Your task to perform on an android device: open chrome and create a bookmark for the current page Image 0: 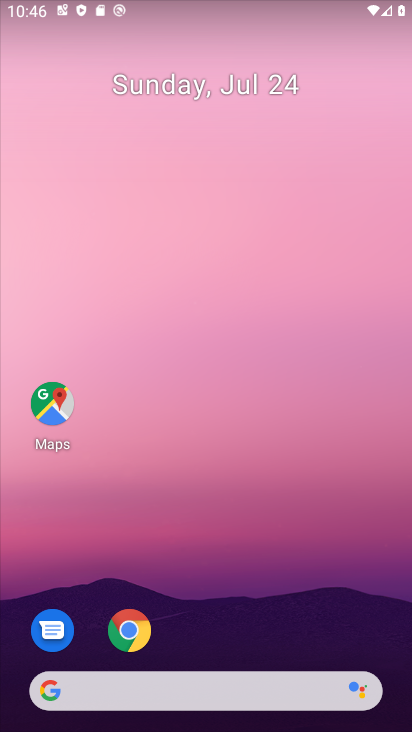
Step 0: click (117, 622)
Your task to perform on an android device: open chrome and create a bookmark for the current page Image 1: 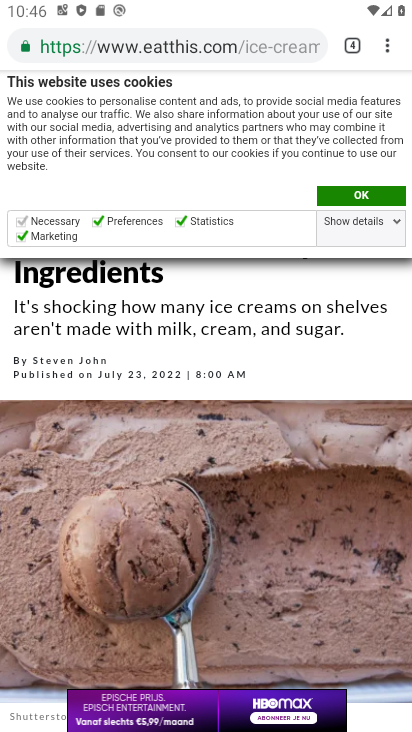
Step 1: click (394, 41)
Your task to perform on an android device: open chrome and create a bookmark for the current page Image 2: 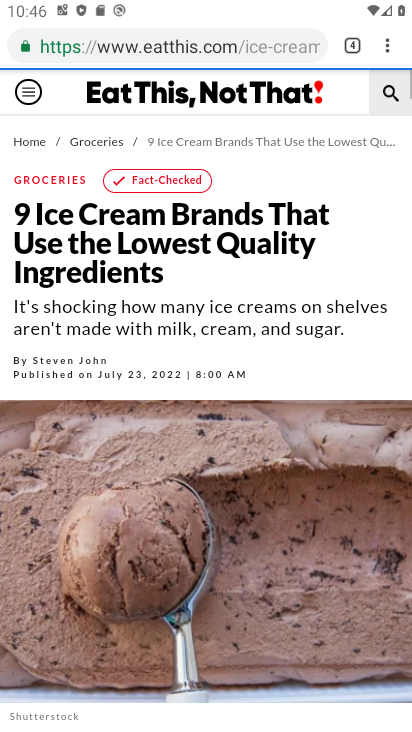
Step 2: click (391, 45)
Your task to perform on an android device: open chrome and create a bookmark for the current page Image 3: 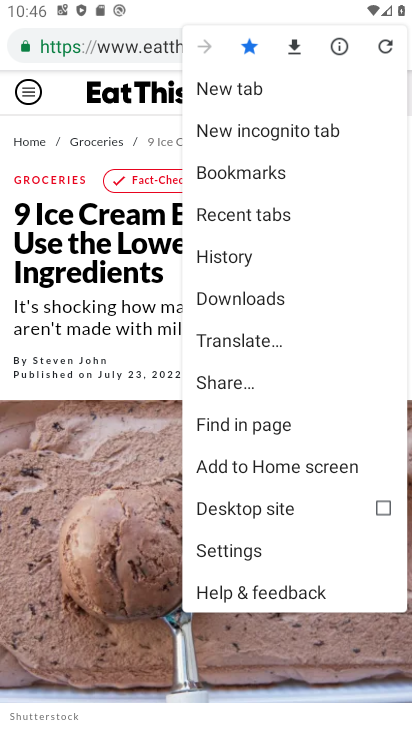
Step 3: click (17, 564)
Your task to perform on an android device: open chrome and create a bookmark for the current page Image 4: 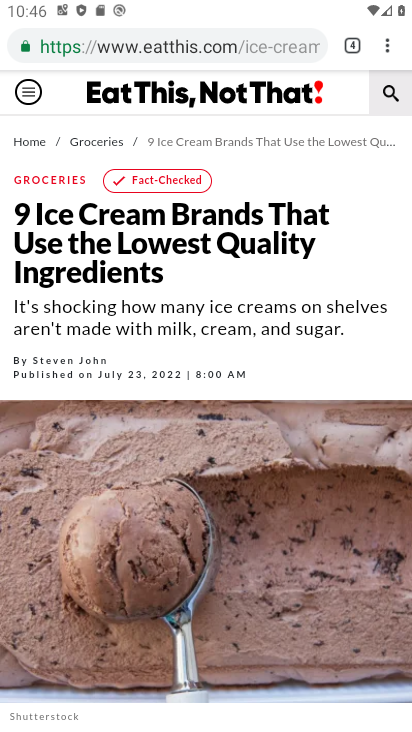
Step 4: click (350, 49)
Your task to perform on an android device: open chrome and create a bookmark for the current page Image 5: 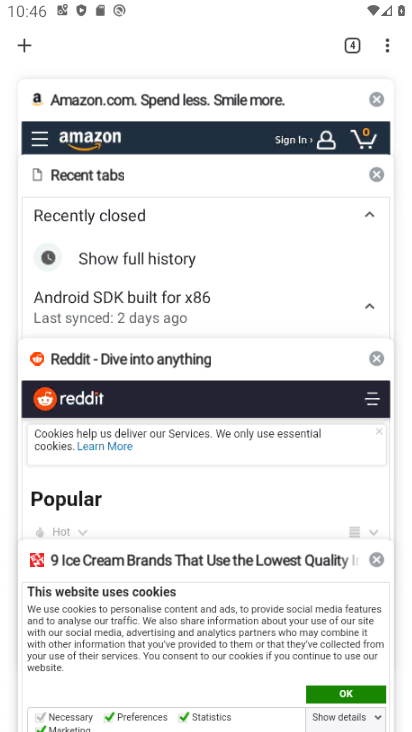
Step 5: click (28, 50)
Your task to perform on an android device: open chrome and create a bookmark for the current page Image 6: 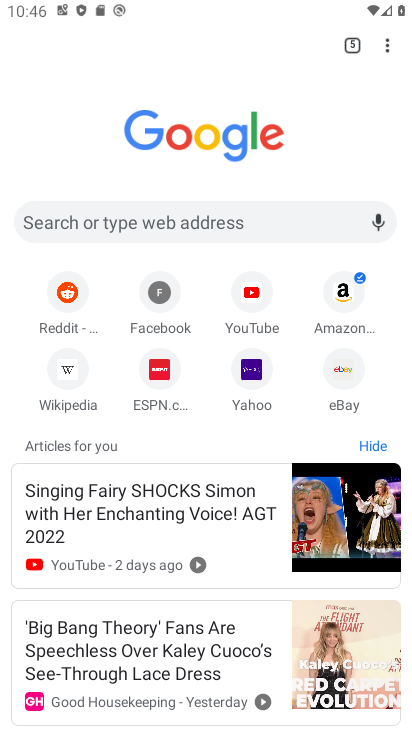
Step 6: drag from (174, 611) to (168, 113)
Your task to perform on an android device: open chrome and create a bookmark for the current page Image 7: 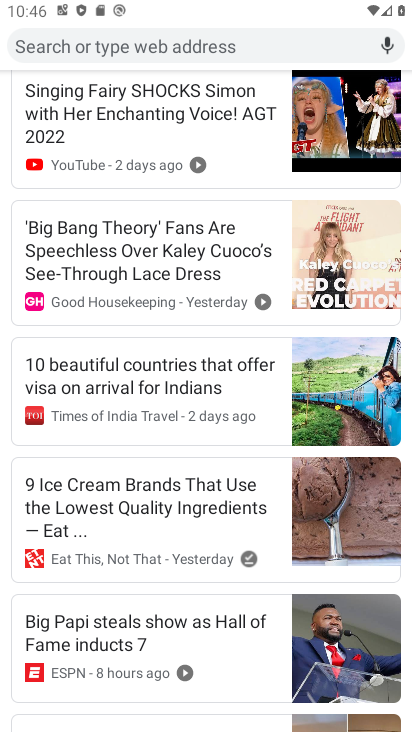
Step 7: drag from (221, 457) to (221, 114)
Your task to perform on an android device: open chrome and create a bookmark for the current page Image 8: 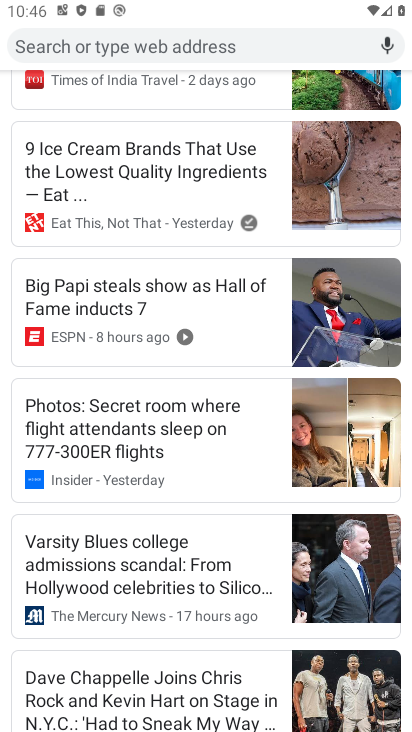
Step 8: drag from (208, 572) to (211, 137)
Your task to perform on an android device: open chrome and create a bookmark for the current page Image 9: 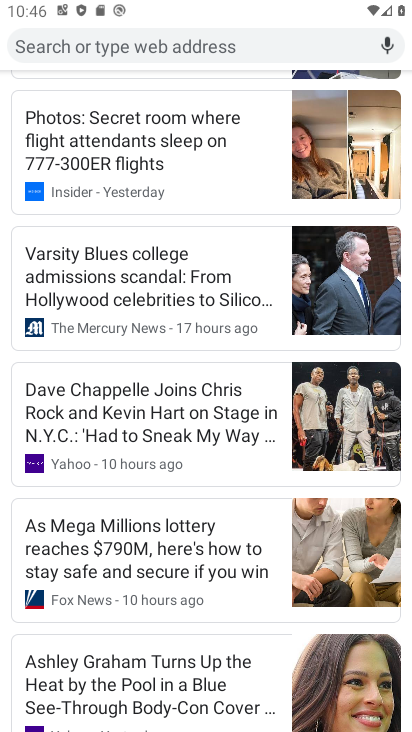
Step 9: click (101, 511)
Your task to perform on an android device: open chrome and create a bookmark for the current page Image 10: 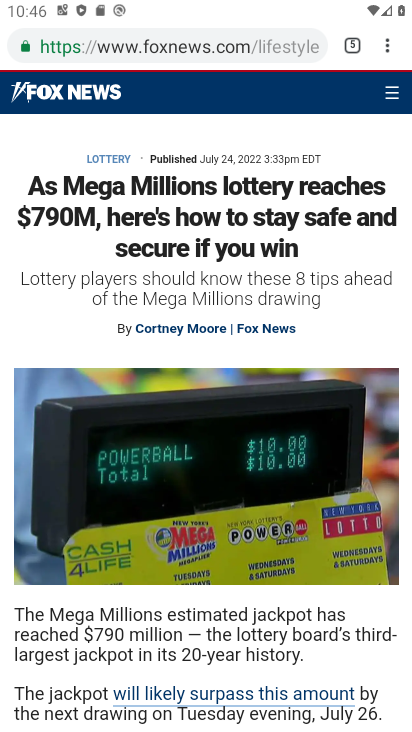
Step 10: click (382, 46)
Your task to perform on an android device: open chrome and create a bookmark for the current page Image 11: 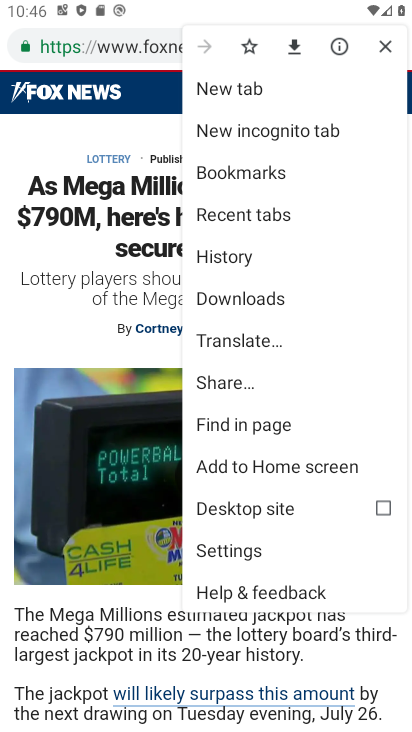
Step 11: click (242, 50)
Your task to perform on an android device: open chrome and create a bookmark for the current page Image 12: 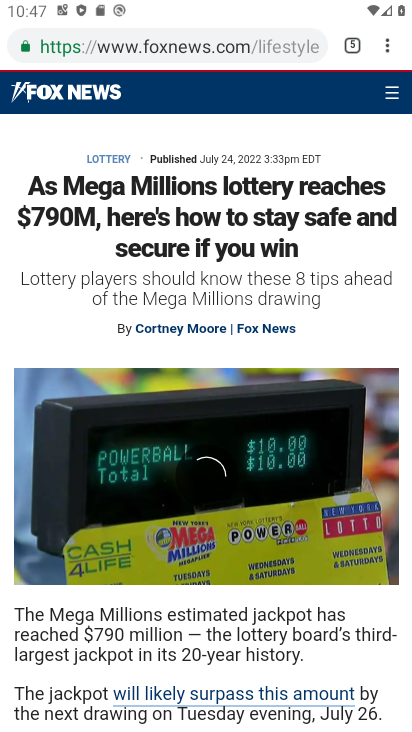
Step 12: task complete